Your task to perform on an android device: Open Chrome and go to the settings page Image 0: 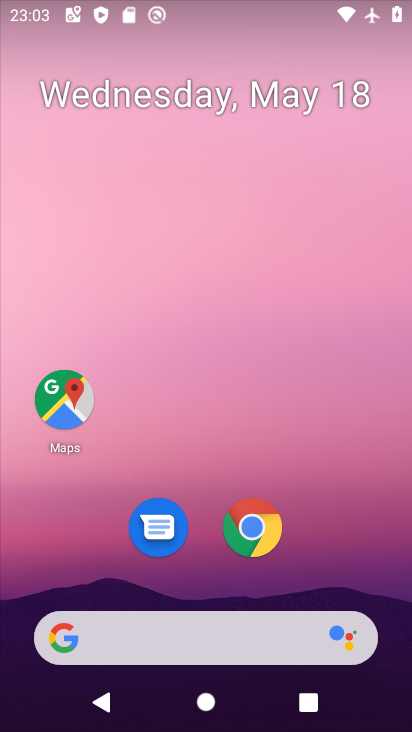
Step 0: click (244, 535)
Your task to perform on an android device: Open Chrome and go to the settings page Image 1: 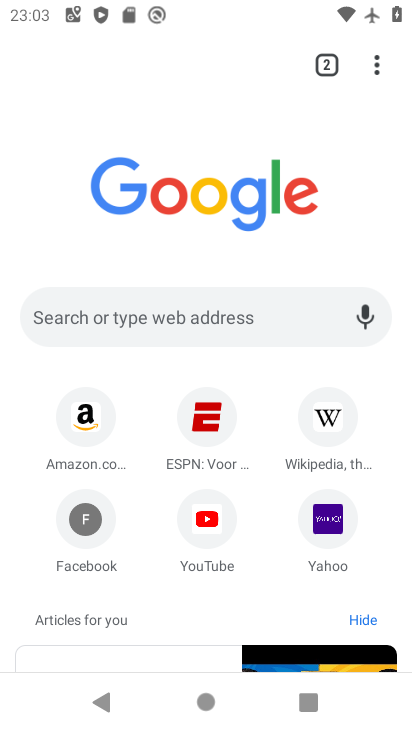
Step 1: click (383, 62)
Your task to perform on an android device: Open Chrome and go to the settings page Image 2: 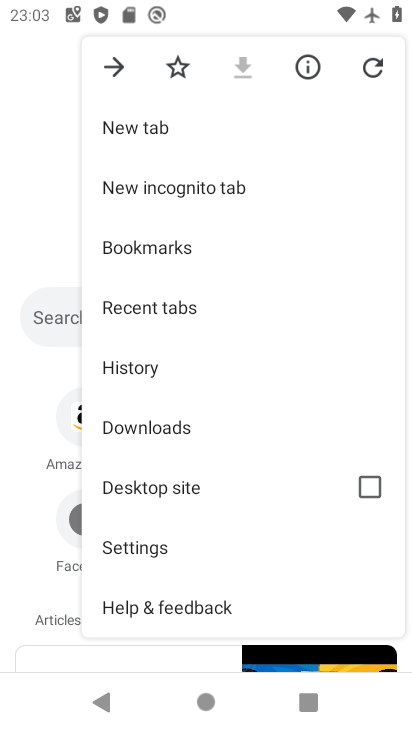
Step 2: click (150, 540)
Your task to perform on an android device: Open Chrome and go to the settings page Image 3: 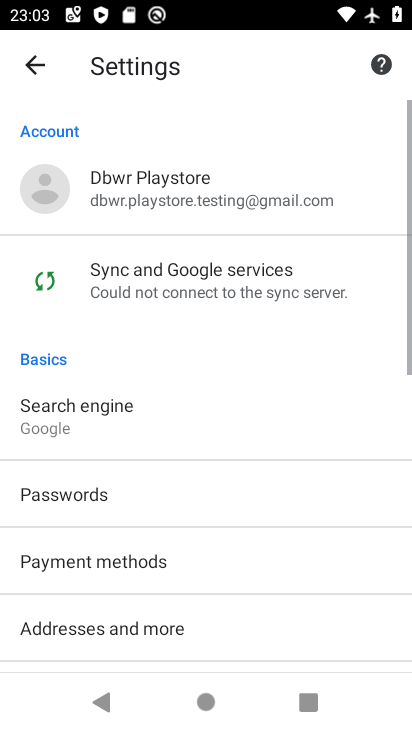
Step 3: task complete